Your task to perform on an android device: Open Google Chrome and open the bookmarks view Image 0: 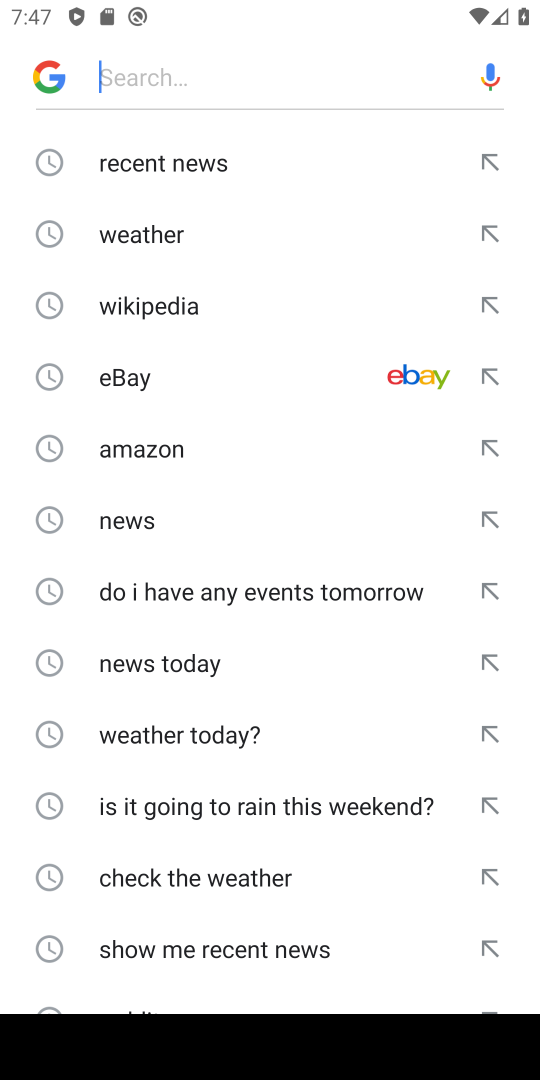
Step 0: press home button
Your task to perform on an android device: Open Google Chrome and open the bookmarks view Image 1: 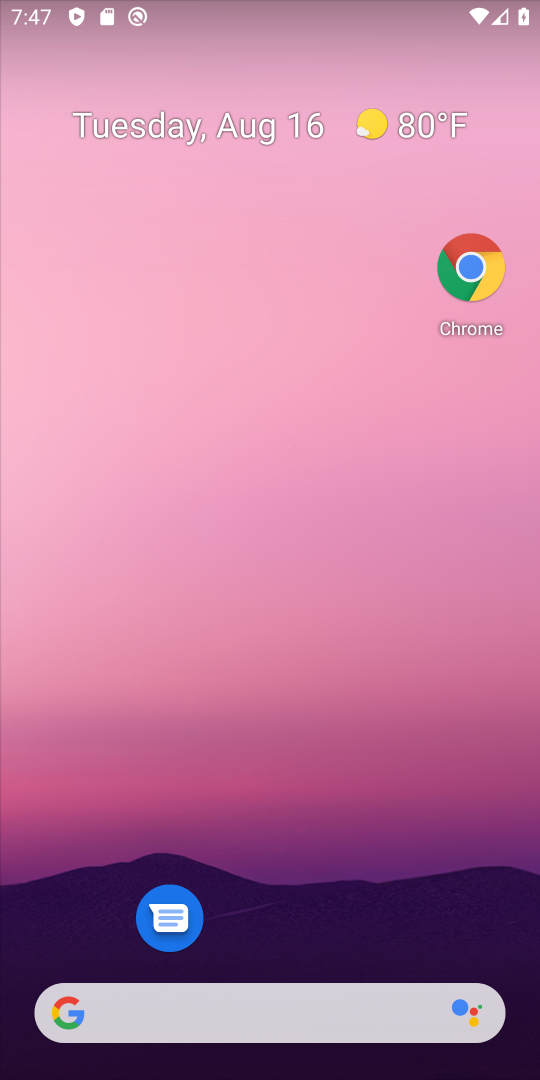
Step 1: click (453, 297)
Your task to perform on an android device: Open Google Chrome and open the bookmarks view Image 2: 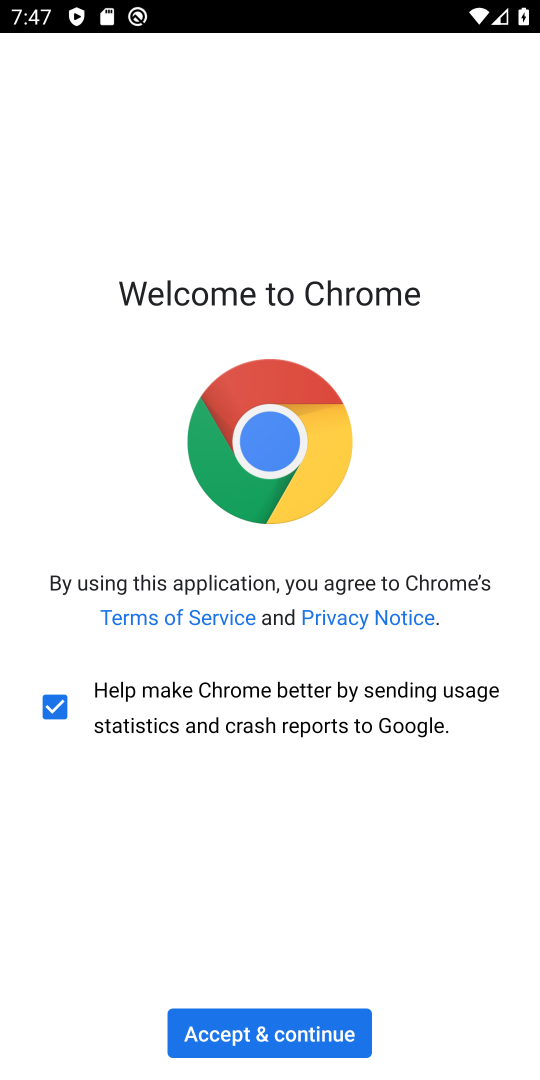
Step 2: click (341, 1040)
Your task to perform on an android device: Open Google Chrome and open the bookmarks view Image 3: 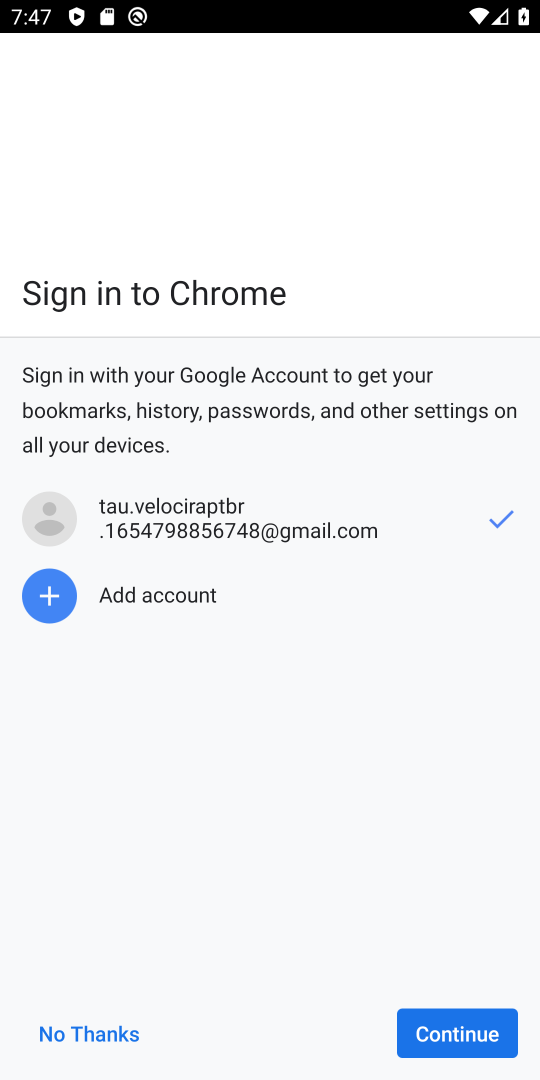
Step 3: click (438, 1051)
Your task to perform on an android device: Open Google Chrome and open the bookmarks view Image 4: 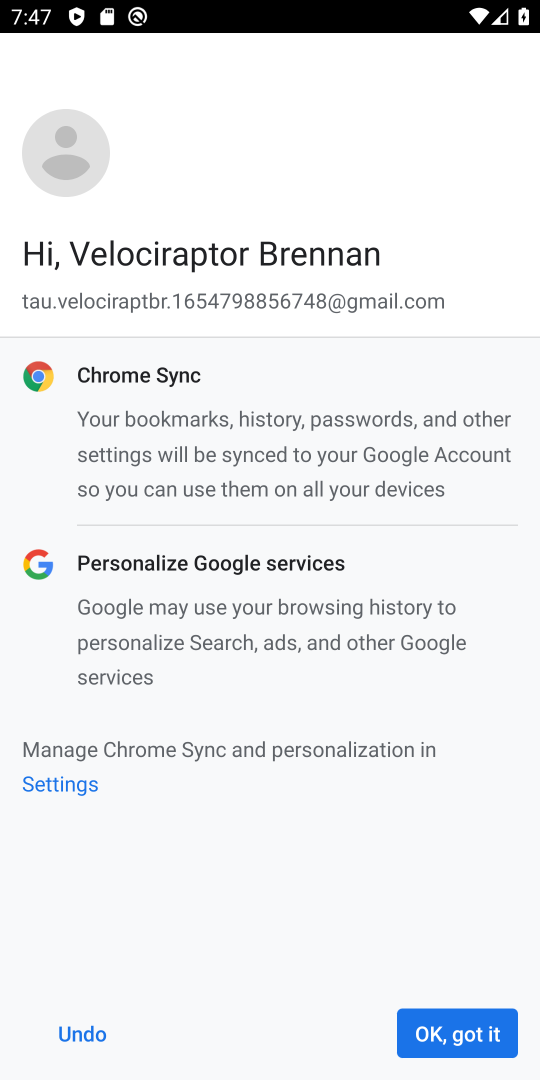
Step 4: click (466, 1042)
Your task to perform on an android device: Open Google Chrome and open the bookmarks view Image 5: 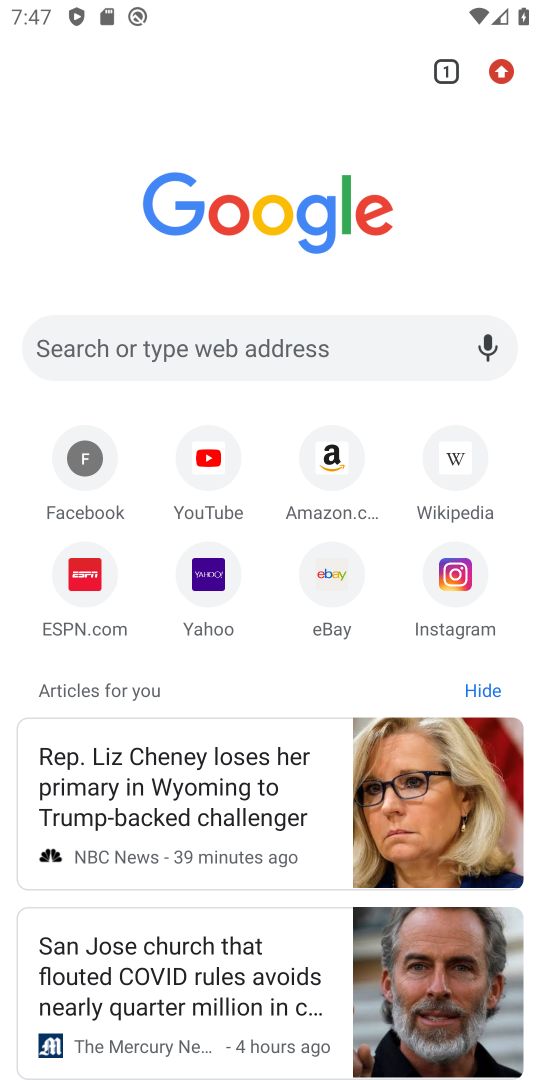
Step 5: click (507, 78)
Your task to perform on an android device: Open Google Chrome and open the bookmarks view Image 6: 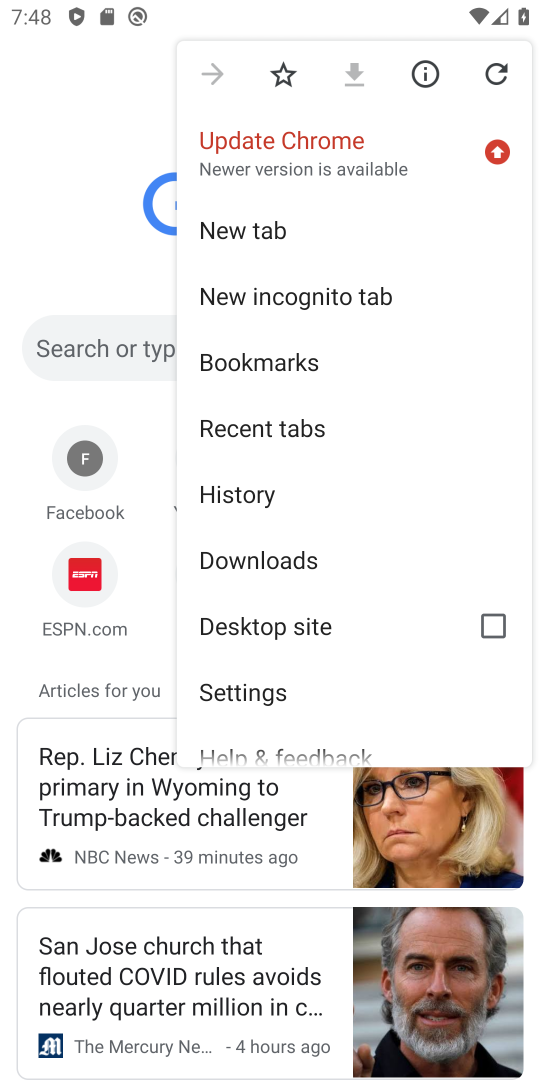
Step 6: click (284, 365)
Your task to perform on an android device: Open Google Chrome and open the bookmarks view Image 7: 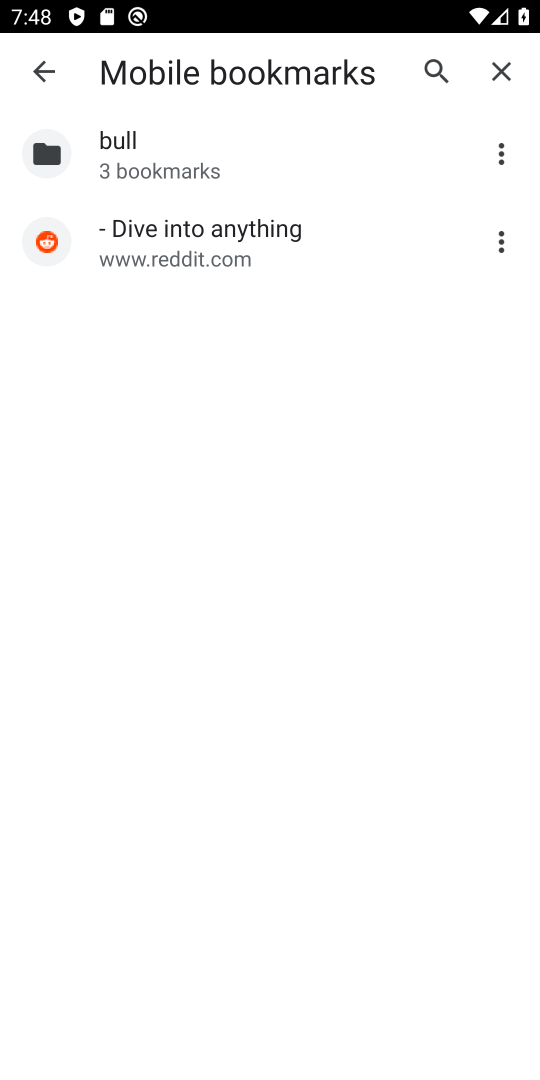
Step 7: task complete